Your task to perform on an android device: Go to internet settings Image 0: 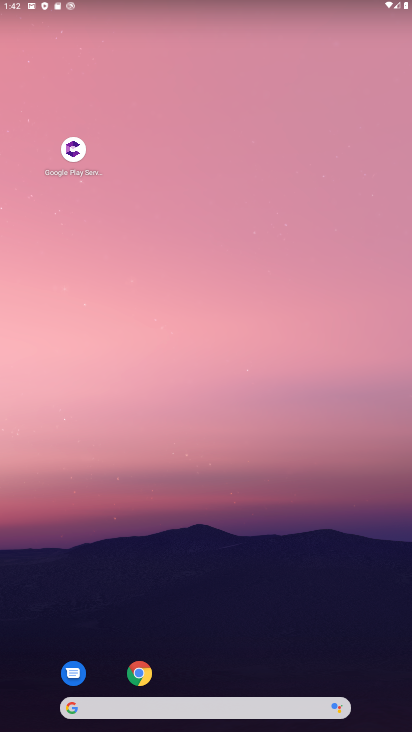
Step 0: drag from (221, 145) to (247, 683)
Your task to perform on an android device: Go to internet settings Image 1: 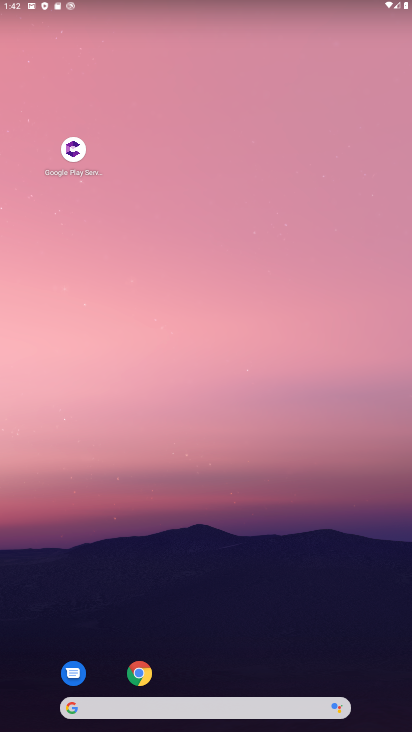
Step 1: drag from (125, 8) to (180, 632)
Your task to perform on an android device: Go to internet settings Image 2: 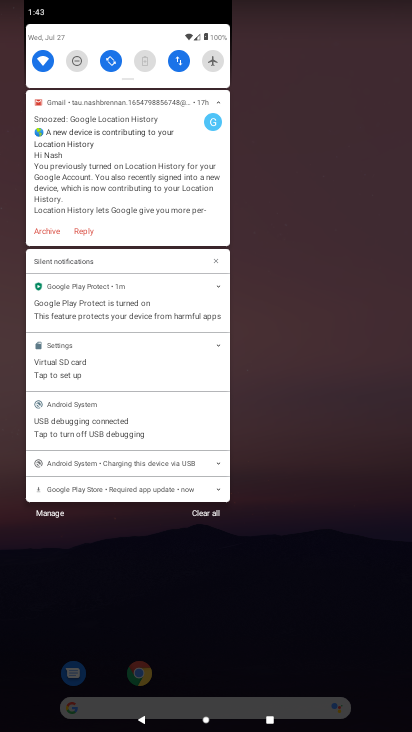
Step 2: click (180, 64)
Your task to perform on an android device: Go to internet settings Image 3: 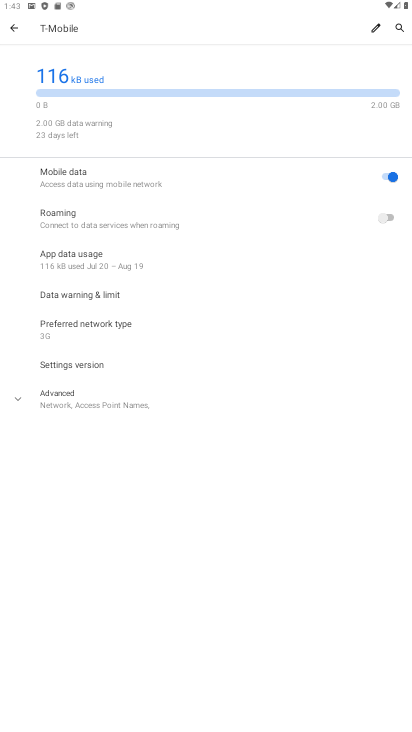
Step 3: task complete